Your task to perform on an android device: What's the weather going to be this weekend? Image 0: 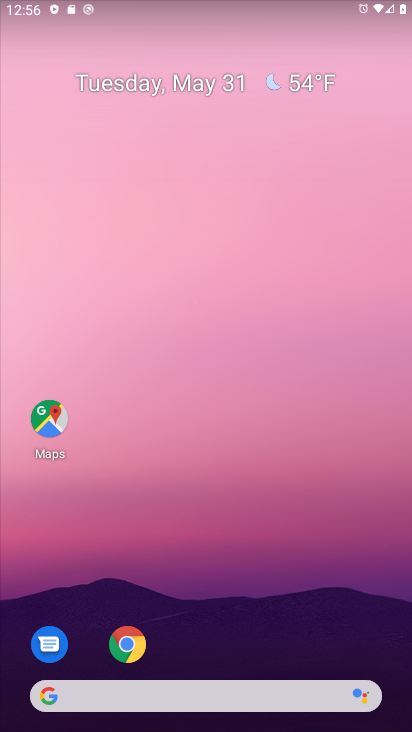
Step 0: press home button
Your task to perform on an android device: What's the weather going to be this weekend? Image 1: 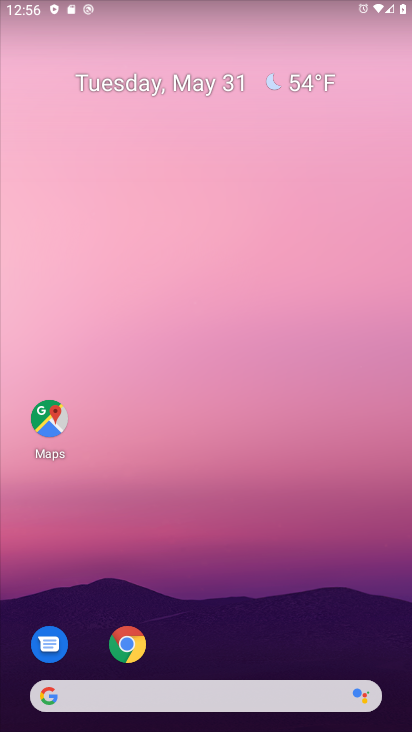
Step 1: click (52, 694)
Your task to perform on an android device: What's the weather going to be this weekend? Image 2: 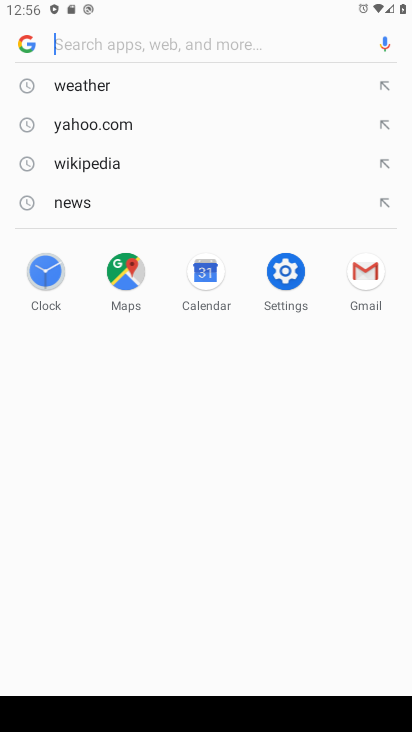
Step 2: type "weather going to be this weekend?"
Your task to perform on an android device: What's the weather going to be this weekend? Image 3: 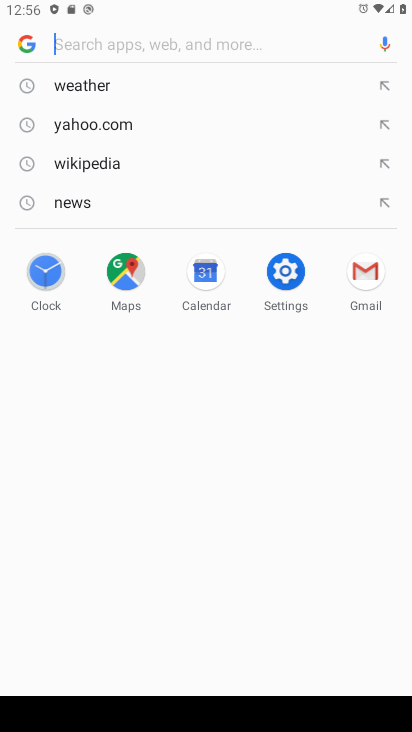
Step 3: click (161, 47)
Your task to perform on an android device: What's the weather going to be this weekend? Image 4: 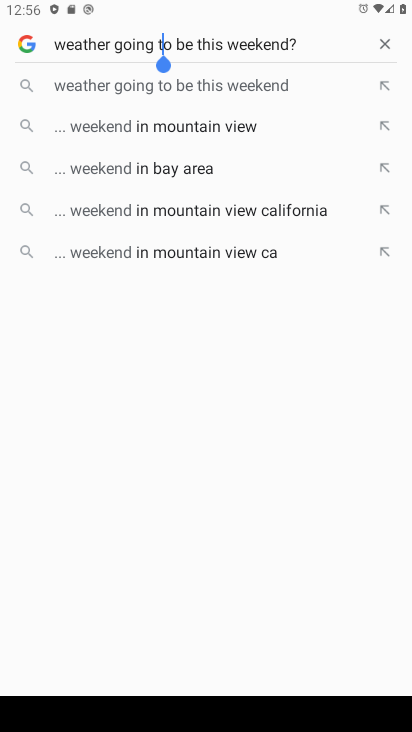
Step 4: click (187, 88)
Your task to perform on an android device: What's the weather going to be this weekend? Image 5: 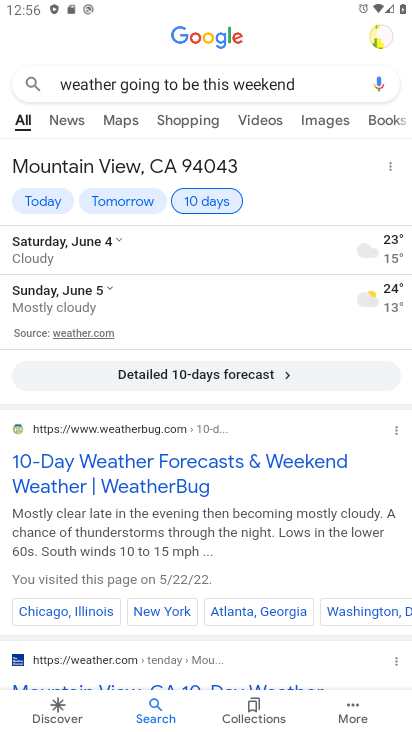
Step 5: task complete